Your task to perform on an android device: turn off translation in the chrome app Image 0: 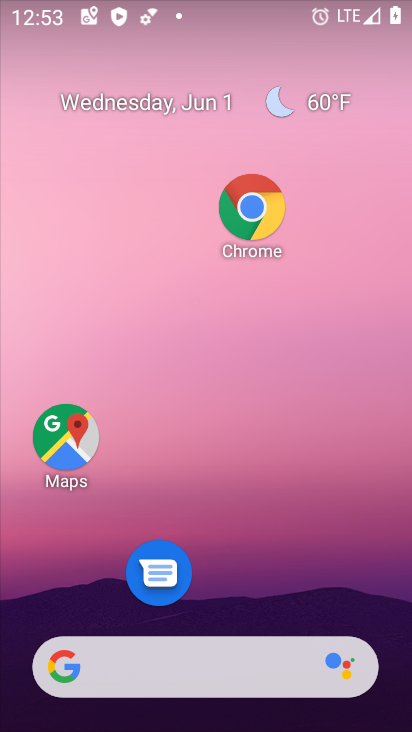
Step 0: click (262, 206)
Your task to perform on an android device: turn off translation in the chrome app Image 1: 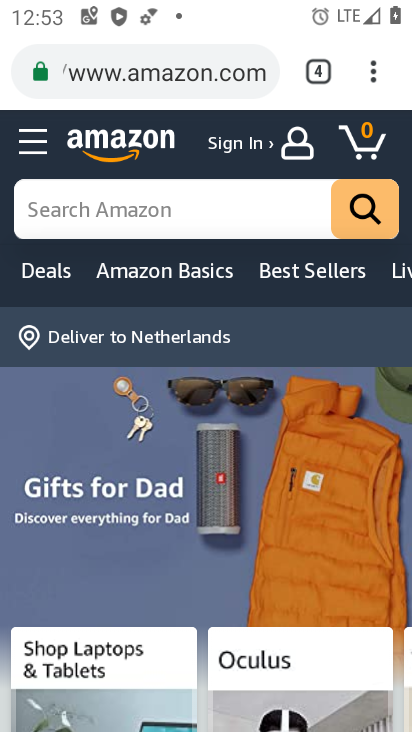
Step 1: click (363, 80)
Your task to perform on an android device: turn off translation in the chrome app Image 2: 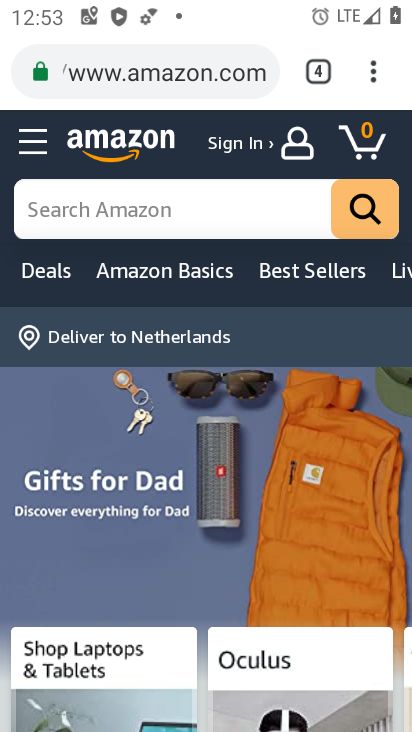
Step 2: drag from (374, 77) to (154, 554)
Your task to perform on an android device: turn off translation in the chrome app Image 3: 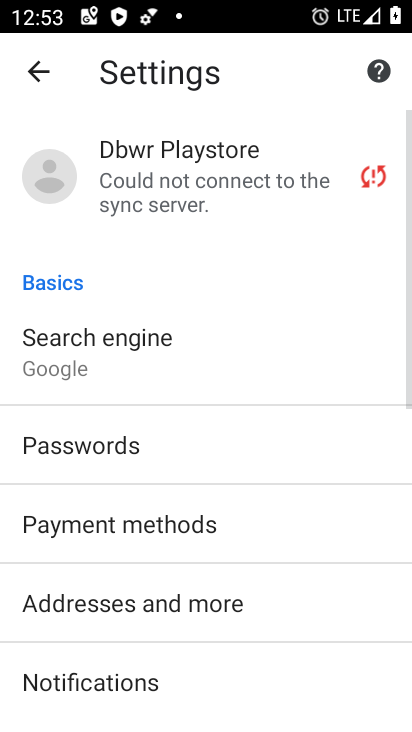
Step 3: drag from (228, 562) to (220, 182)
Your task to perform on an android device: turn off translation in the chrome app Image 4: 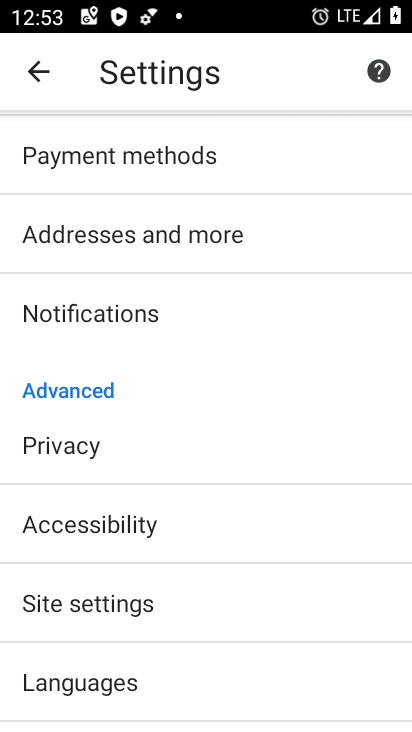
Step 4: drag from (203, 593) to (223, 395)
Your task to perform on an android device: turn off translation in the chrome app Image 5: 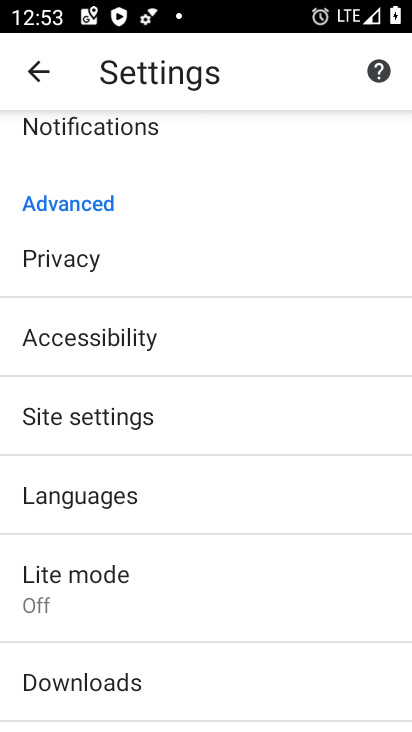
Step 5: click (153, 484)
Your task to perform on an android device: turn off translation in the chrome app Image 6: 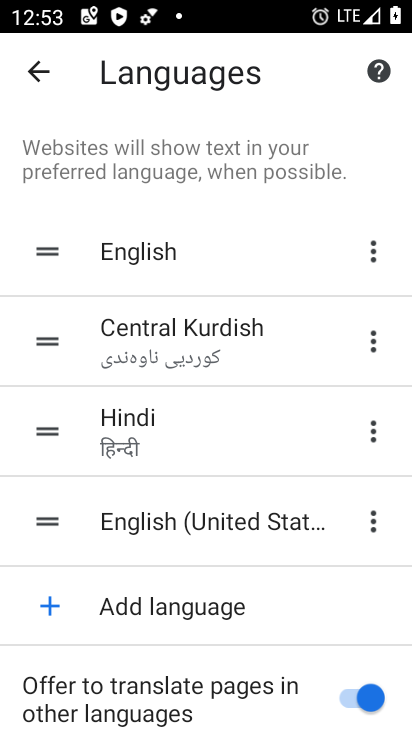
Step 6: click (344, 701)
Your task to perform on an android device: turn off translation in the chrome app Image 7: 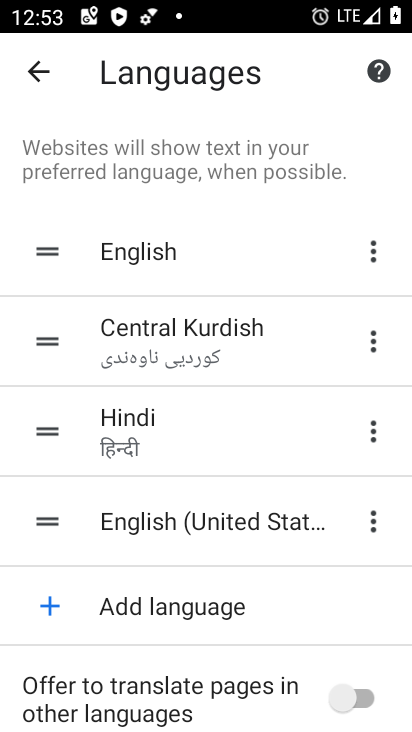
Step 7: task complete